Your task to perform on an android device: turn off notifications in google photos Image 0: 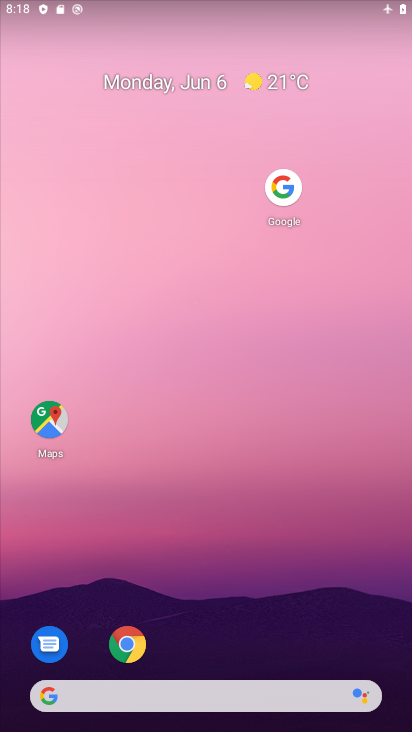
Step 0: drag from (214, 673) to (410, 664)
Your task to perform on an android device: turn off notifications in google photos Image 1: 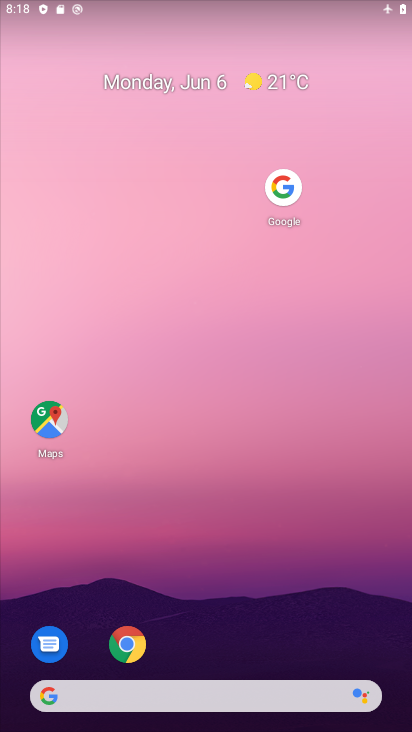
Step 1: drag from (226, 683) to (223, 58)
Your task to perform on an android device: turn off notifications in google photos Image 2: 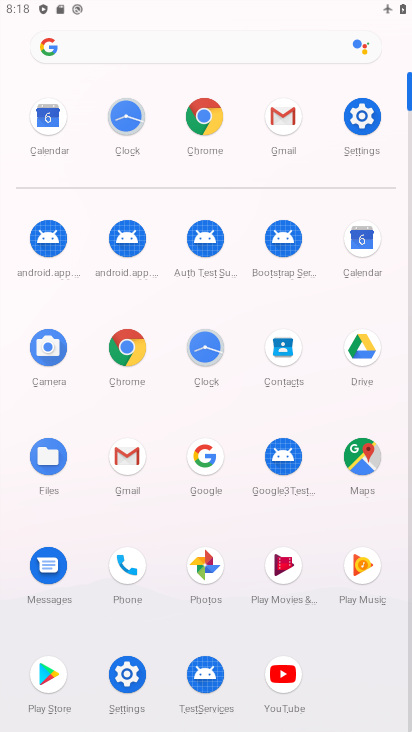
Step 2: click (200, 589)
Your task to perform on an android device: turn off notifications in google photos Image 3: 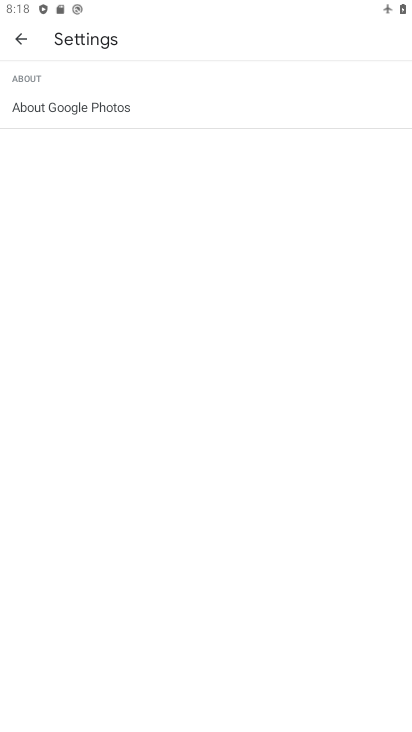
Step 3: click (19, 33)
Your task to perform on an android device: turn off notifications in google photos Image 4: 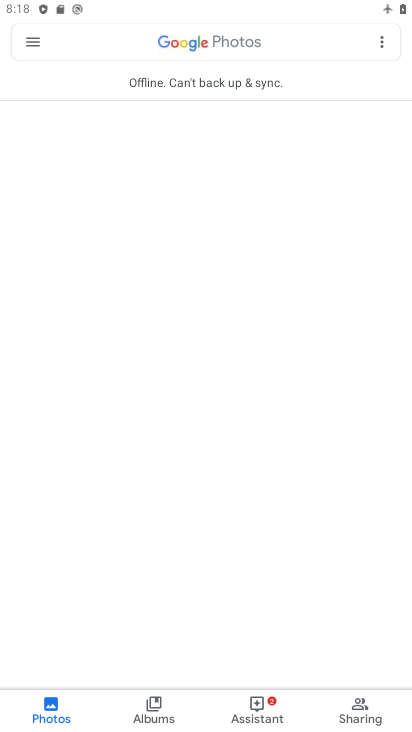
Step 4: click (21, 35)
Your task to perform on an android device: turn off notifications in google photos Image 5: 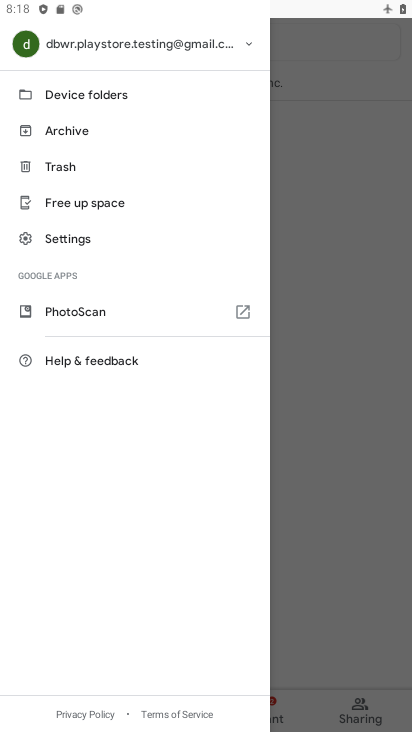
Step 5: click (66, 235)
Your task to perform on an android device: turn off notifications in google photos Image 6: 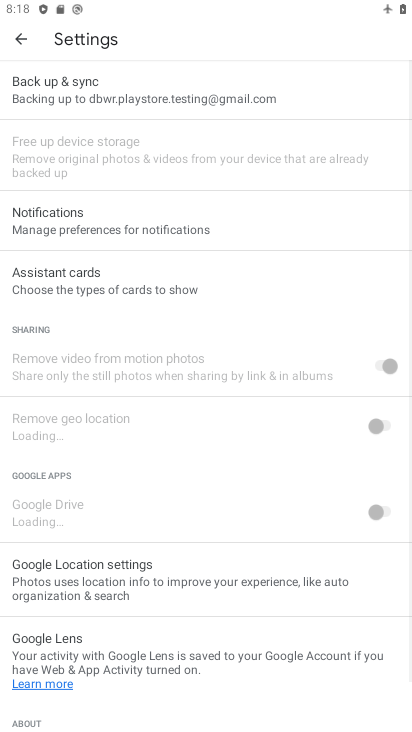
Step 6: click (75, 234)
Your task to perform on an android device: turn off notifications in google photos Image 7: 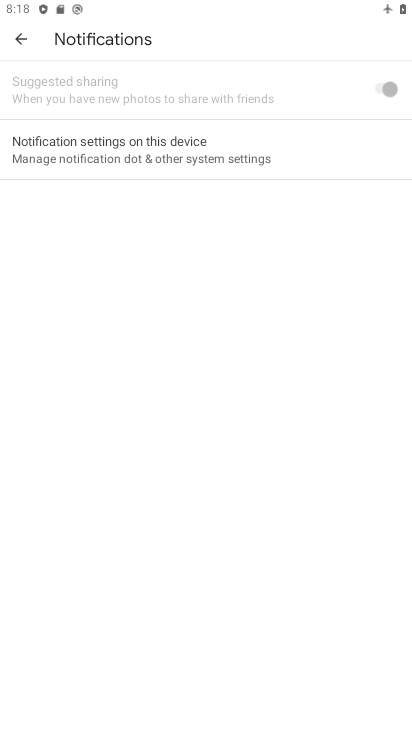
Step 7: click (294, 141)
Your task to perform on an android device: turn off notifications in google photos Image 8: 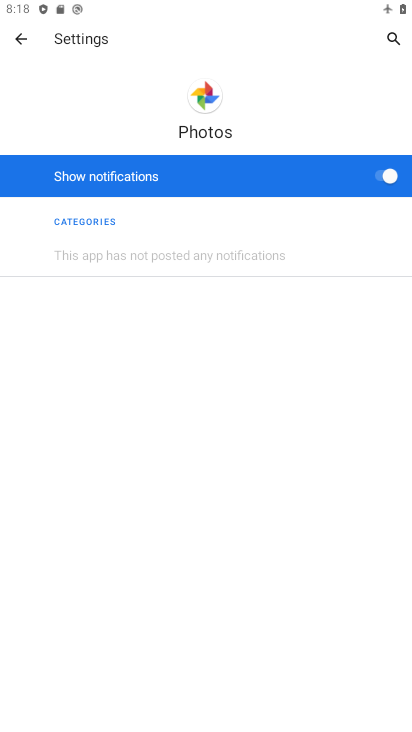
Step 8: click (382, 171)
Your task to perform on an android device: turn off notifications in google photos Image 9: 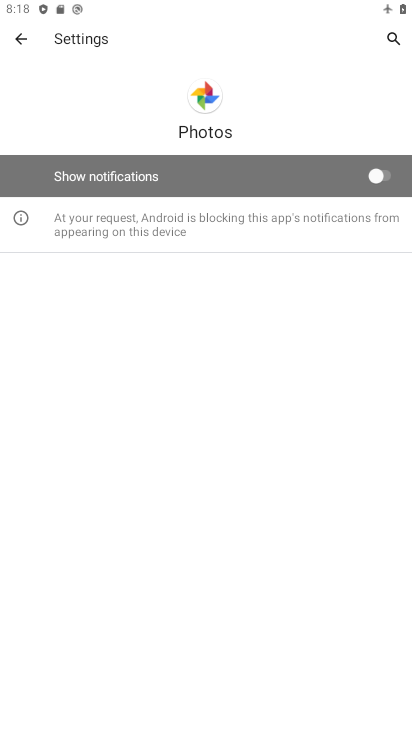
Step 9: task complete